Your task to perform on an android device: What's on my calendar today? Image 0: 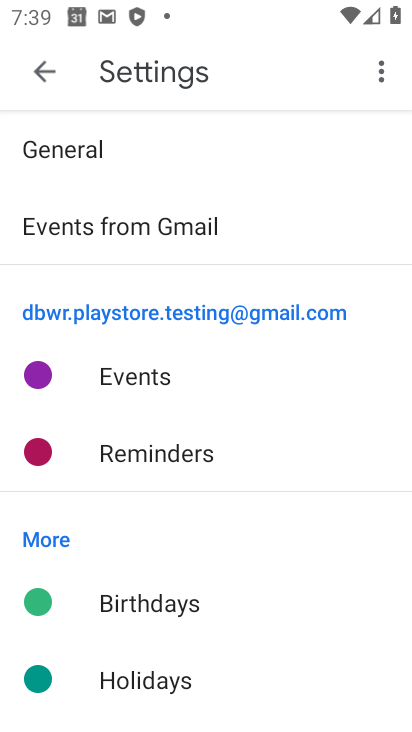
Step 0: press home button
Your task to perform on an android device: What's on my calendar today? Image 1: 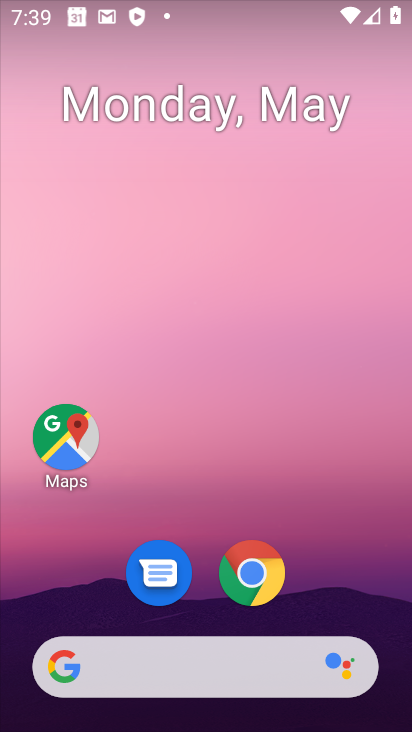
Step 1: drag from (154, 659) to (186, 135)
Your task to perform on an android device: What's on my calendar today? Image 2: 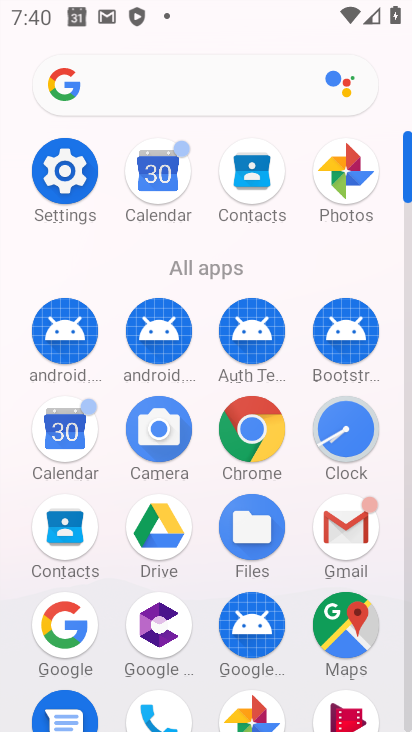
Step 2: click (70, 438)
Your task to perform on an android device: What's on my calendar today? Image 3: 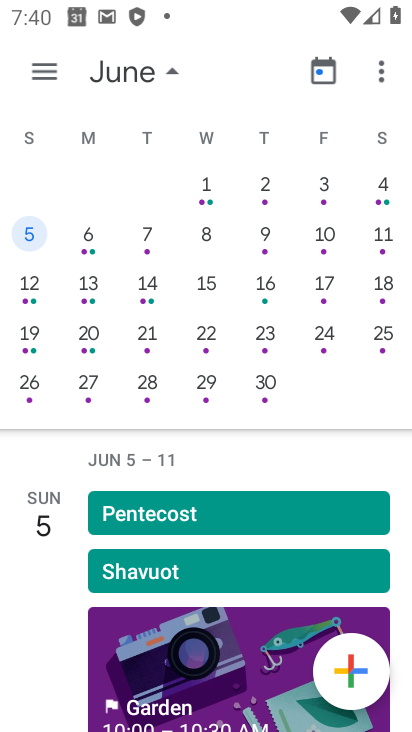
Step 3: drag from (44, 328) to (401, 400)
Your task to perform on an android device: What's on my calendar today? Image 4: 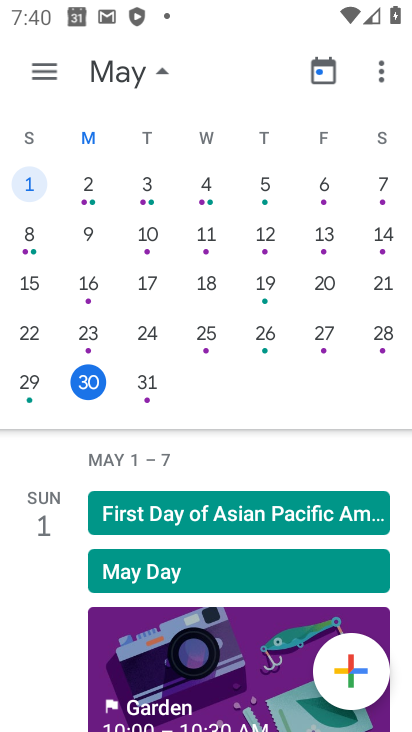
Step 4: click (150, 369)
Your task to perform on an android device: What's on my calendar today? Image 5: 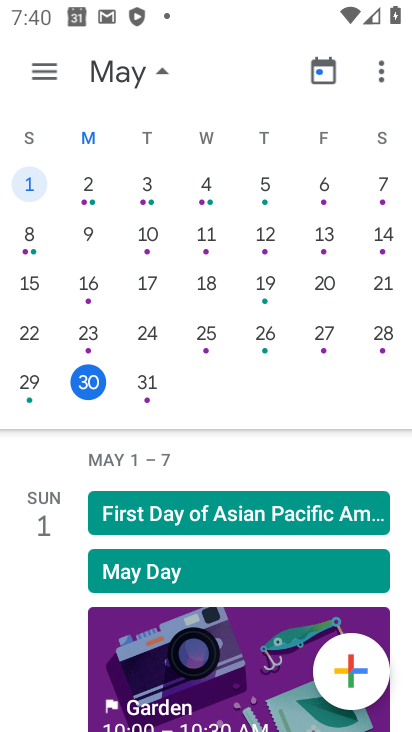
Step 5: click (92, 394)
Your task to perform on an android device: What's on my calendar today? Image 6: 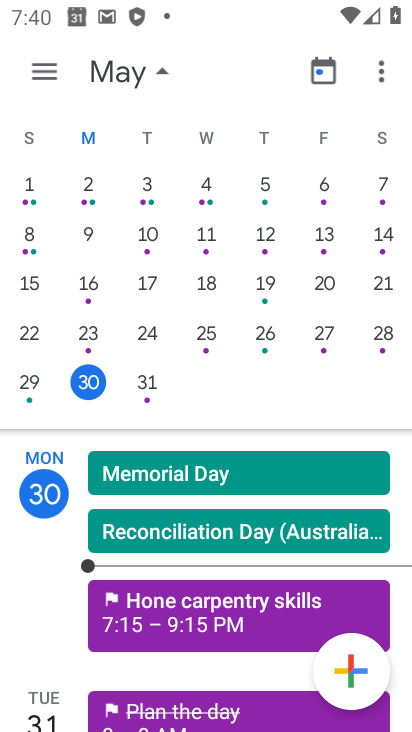
Step 6: task complete